Your task to perform on an android device: Check the news Image 0: 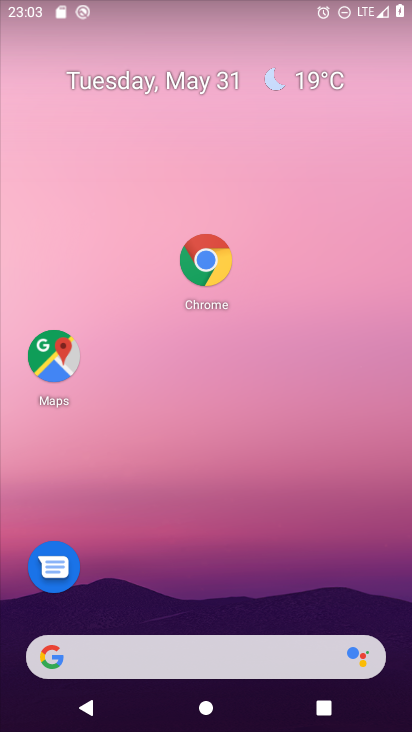
Step 0: drag from (212, 644) to (211, 211)
Your task to perform on an android device: Check the news Image 1: 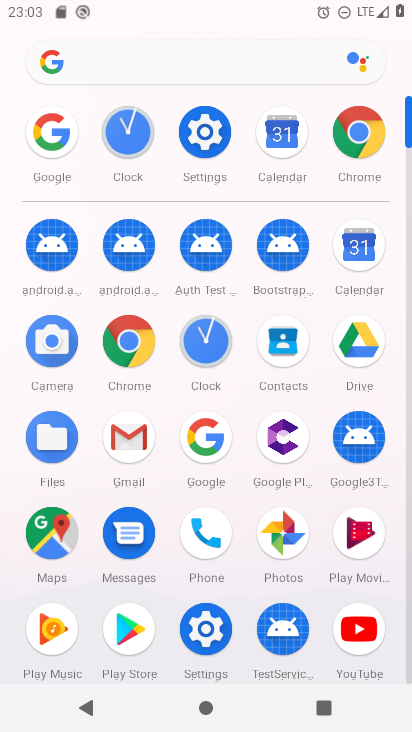
Step 1: click (197, 438)
Your task to perform on an android device: Check the news Image 2: 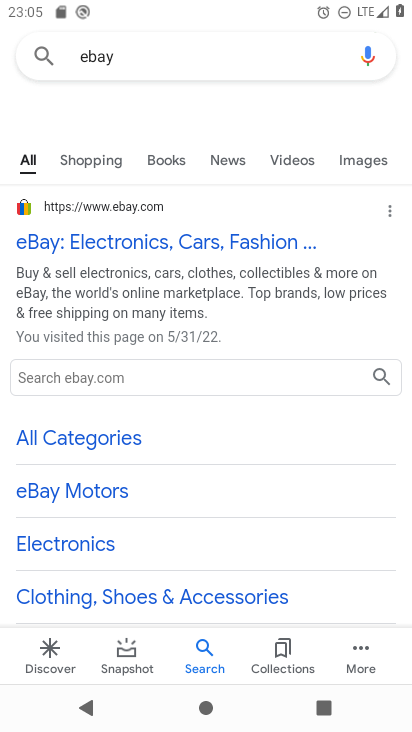
Step 2: click (151, 50)
Your task to perform on an android device: Check the news Image 3: 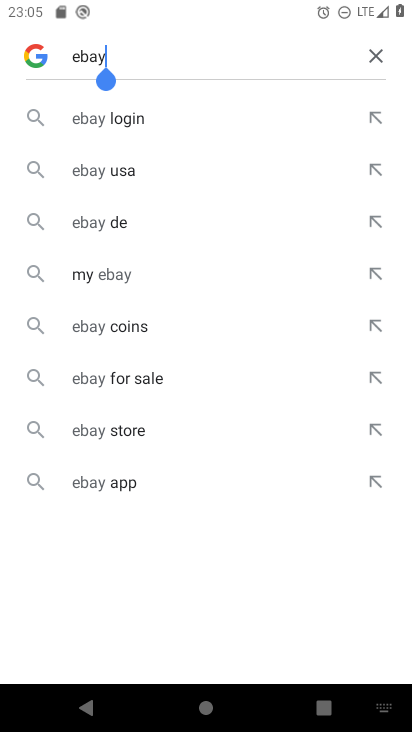
Step 3: click (375, 59)
Your task to perform on an android device: Check the news Image 4: 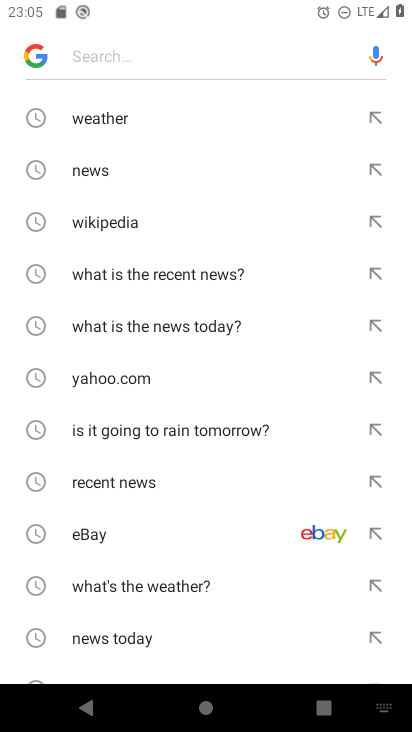
Step 4: click (100, 165)
Your task to perform on an android device: Check the news Image 5: 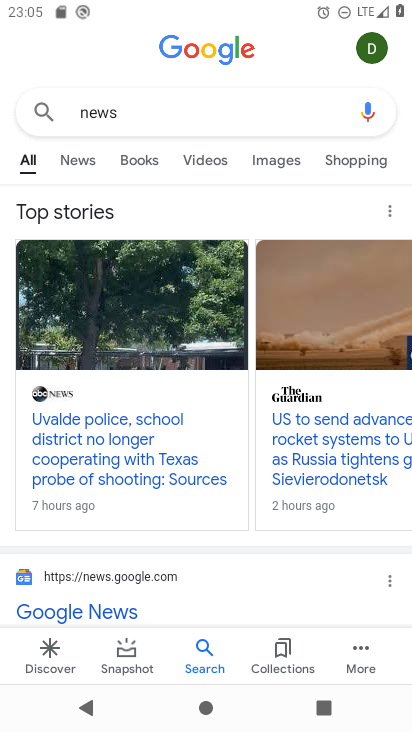
Step 5: task complete